Your task to perform on an android device: change text size in settings app Image 0: 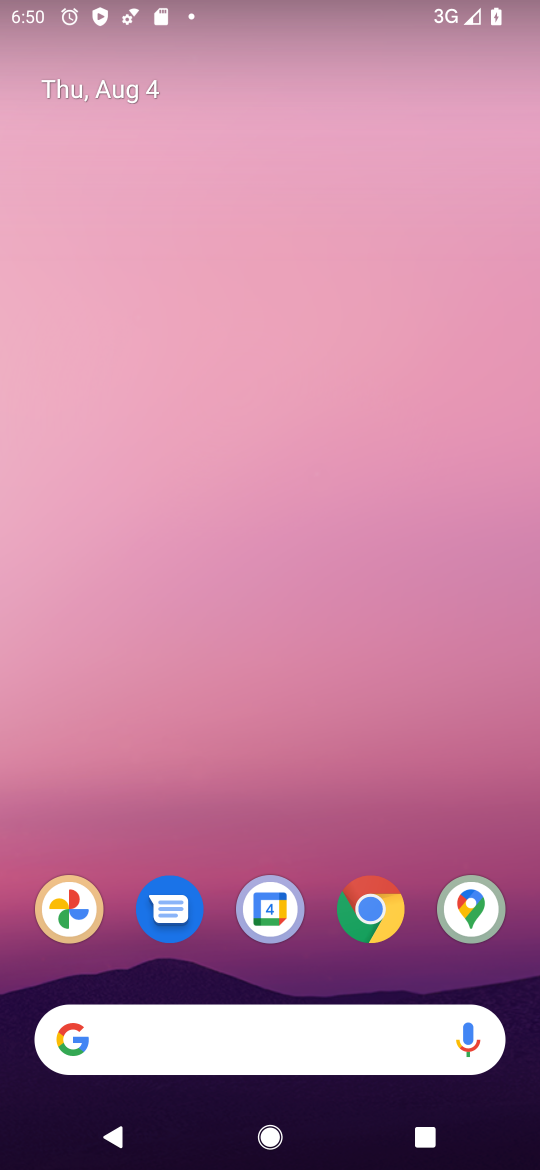
Step 0: drag from (87, 1146) to (218, 203)
Your task to perform on an android device: change text size in settings app Image 1: 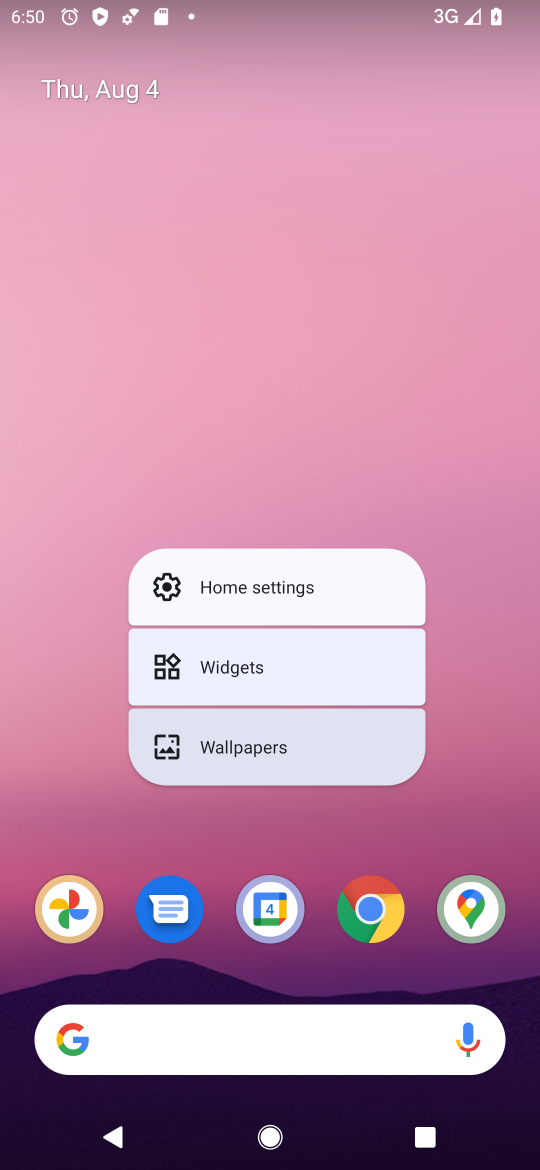
Step 1: click (376, 501)
Your task to perform on an android device: change text size in settings app Image 2: 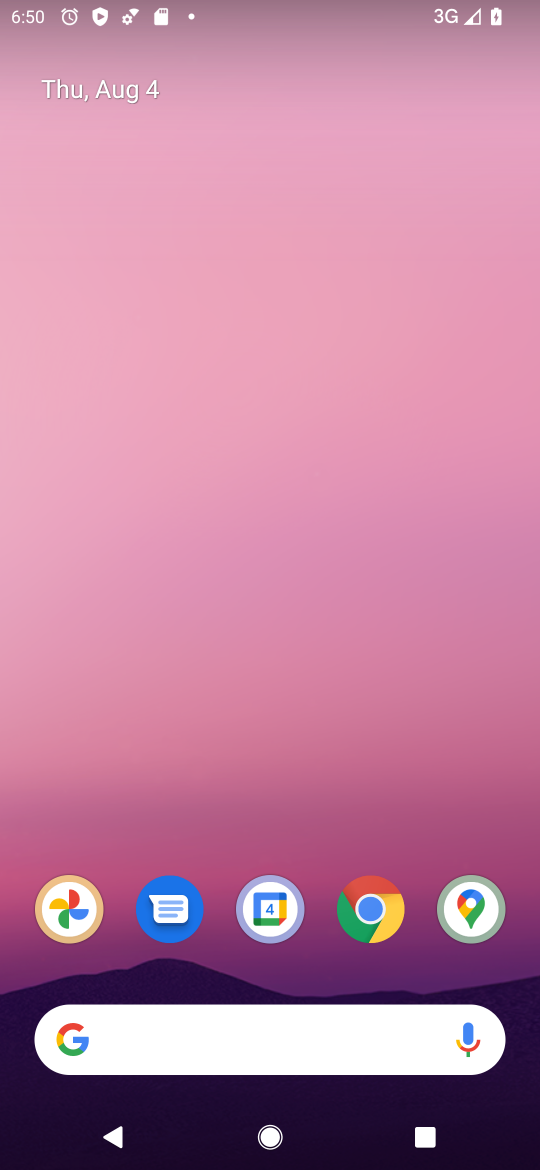
Step 2: drag from (399, 966) to (178, 10)
Your task to perform on an android device: change text size in settings app Image 3: 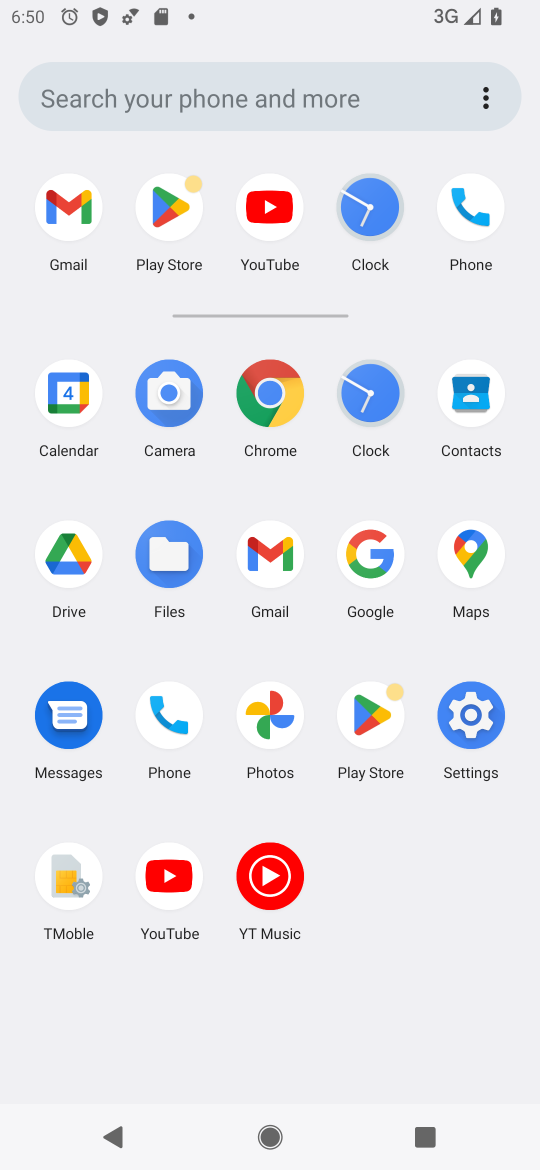
Step 3: click (466, 752)
Your task to perform on an android device: change text size in settings app Image 4: 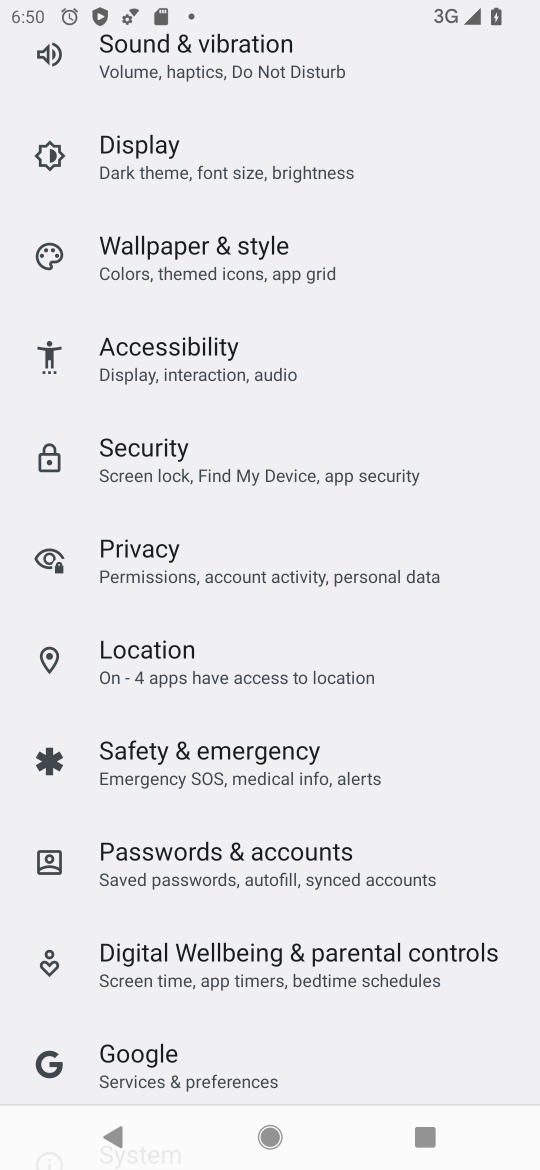
Step 4: drag from (186, 388) to (176, 1017)
Your task to perform on an android device: change text size in settings app Image 5: 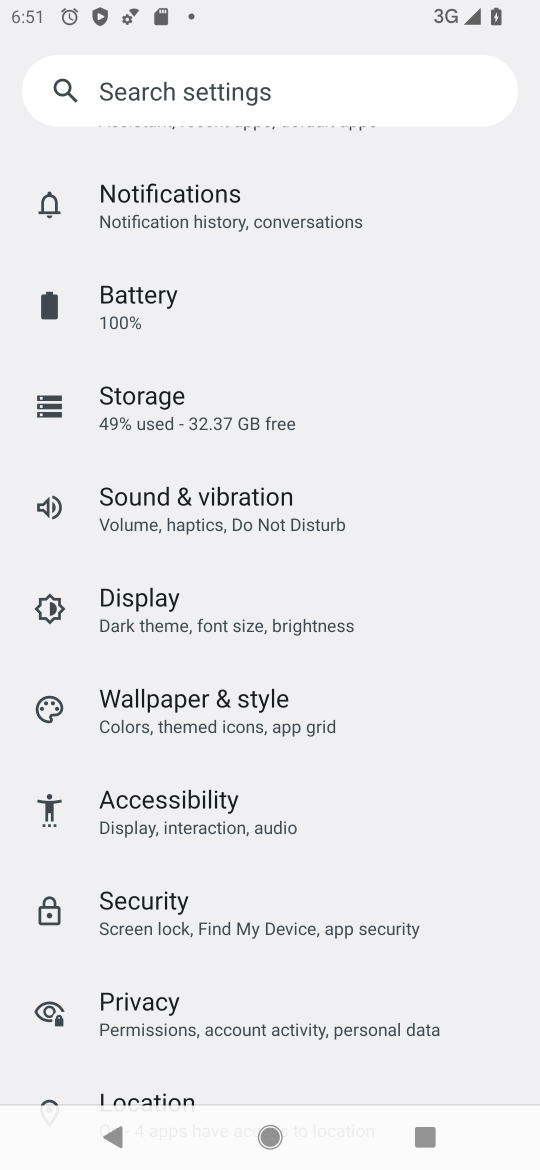
Step 5: drag from (256, 415) to (264, 922)
Your task to perform on an android device: change text size in settings app Image 6: 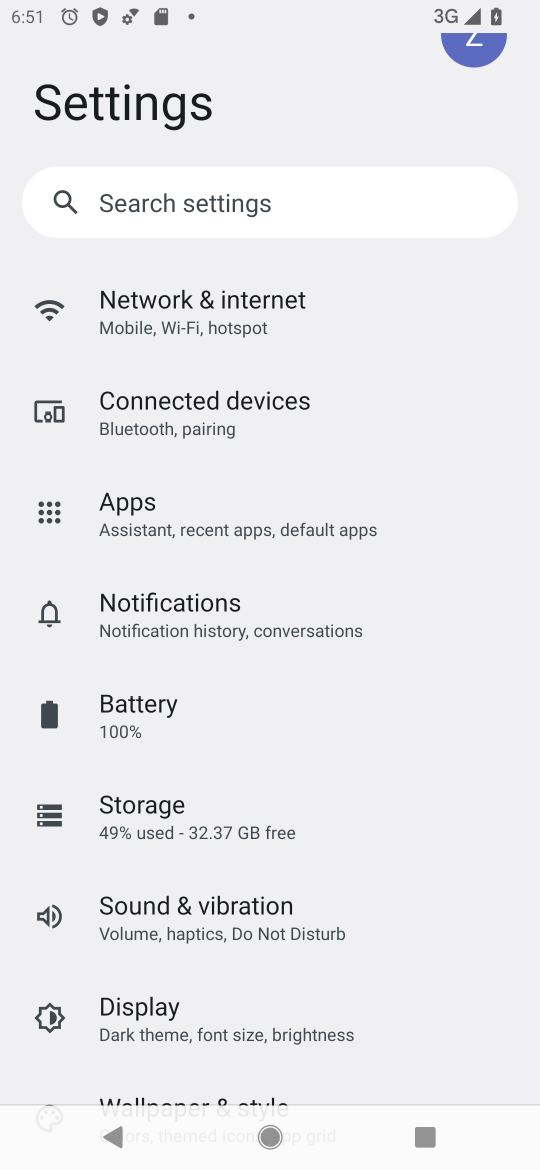
Step 6: drag from (262, 954) to (125, 436)
Your task to perform on an android device: change text size in settings app Image 7: 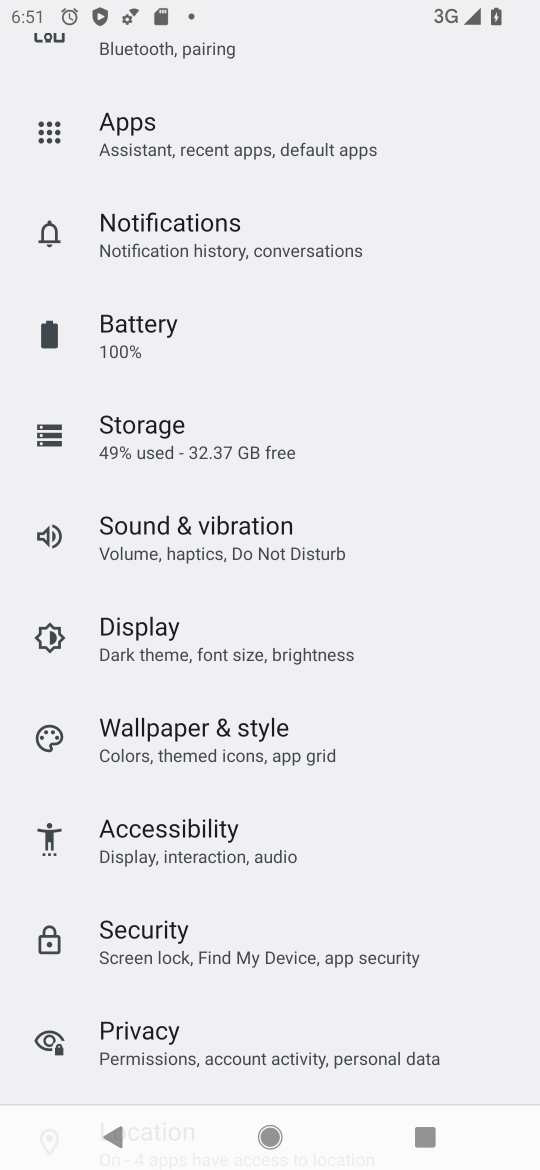
Step 7: click (136, 644)
Your task to perform on an android device: change text size in settings app Image 8: 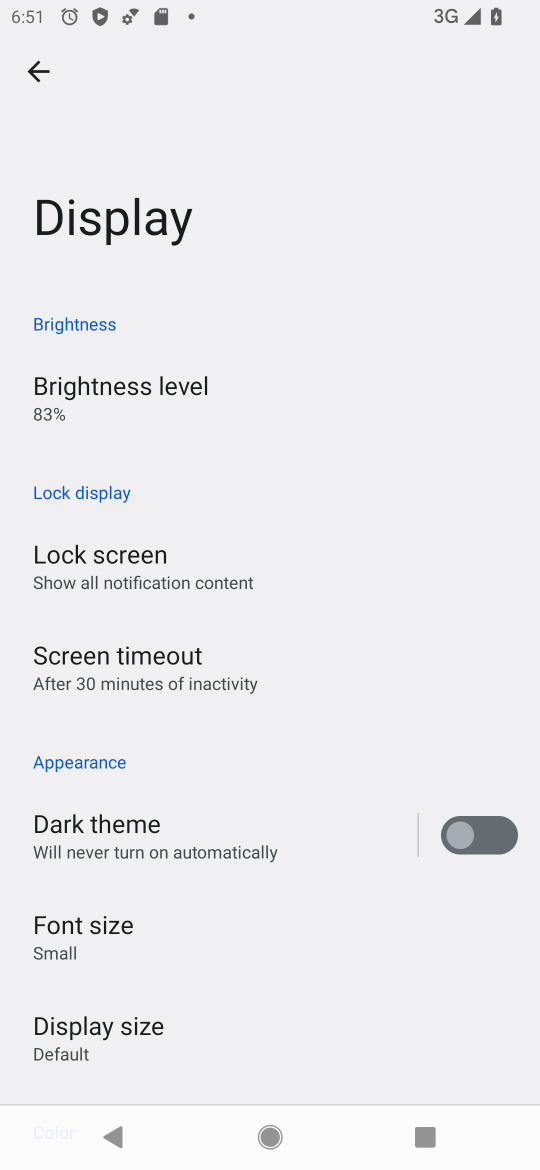
Step 8: click (69, 930)
Your task to perform on an android device: change text size in settings app Image 9: 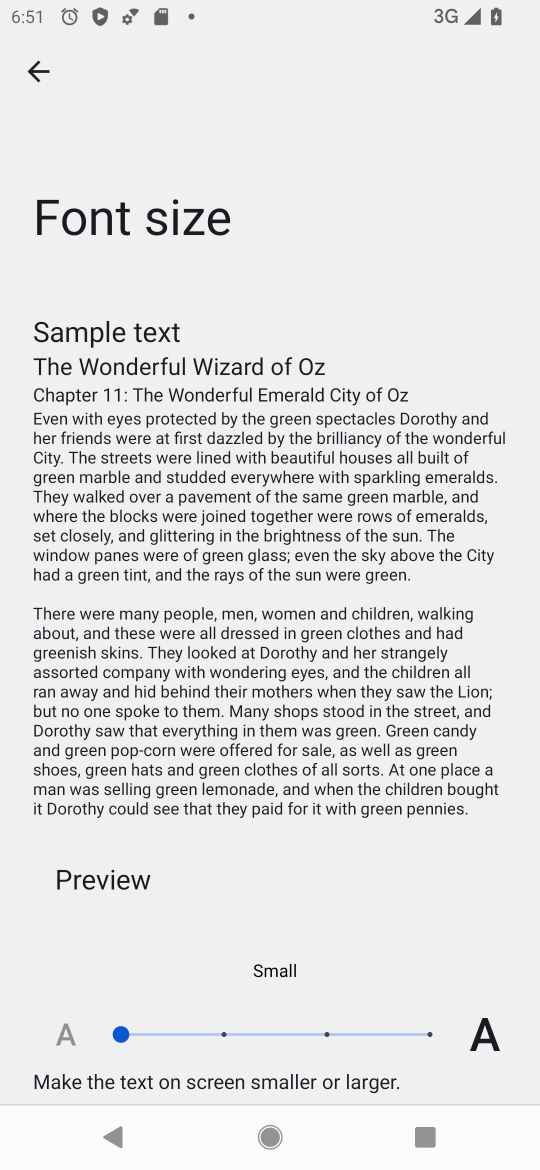
Step 9: click (270, 1038)
Your task to perform on an android device: change text size in settings app Image 10: 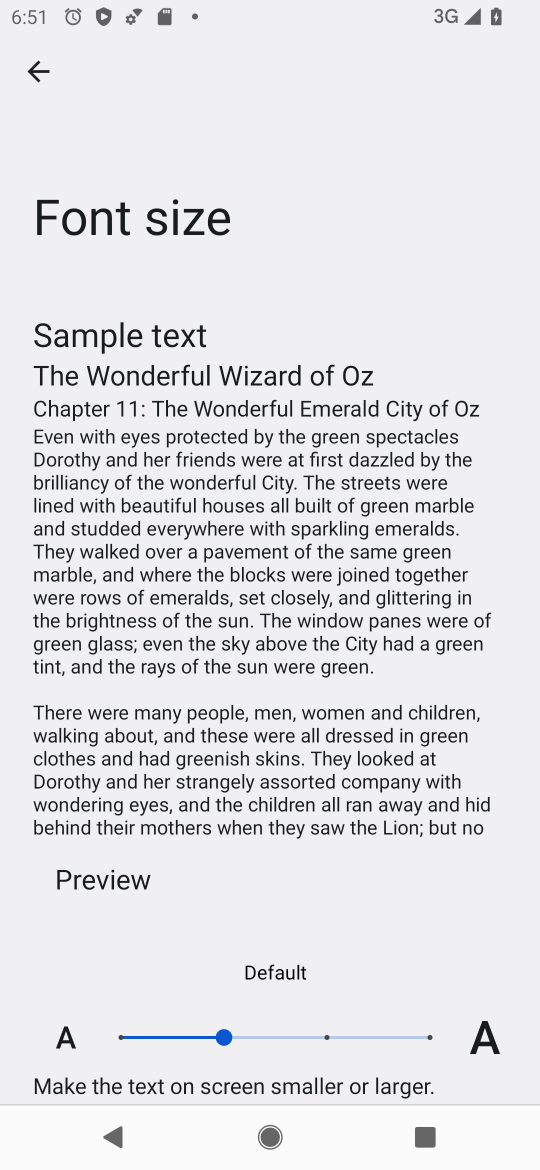
Step 10: task complete